Your task to perform on an android device: Go to internet settings Image 0: 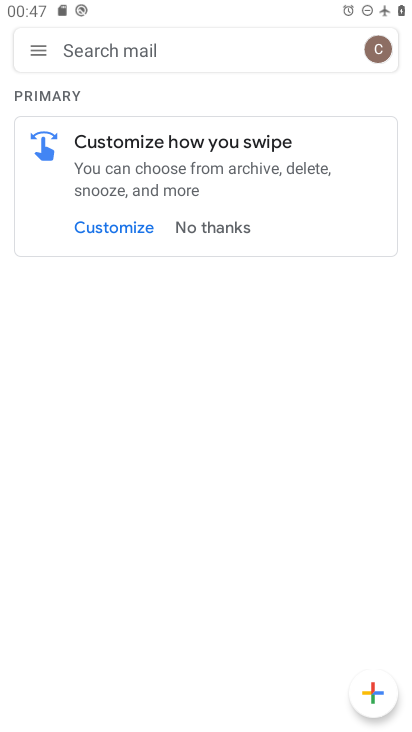
Step 0: press home button
Your task to perform on an android device: Go to internet settings Image 1: 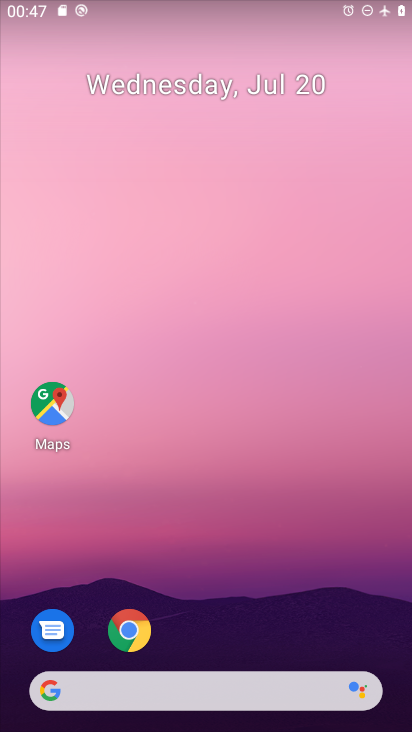
Step 1: drag from (194, 627) to (226, 227)
Your task to perform on an android device: Go to internet settings Image 2: 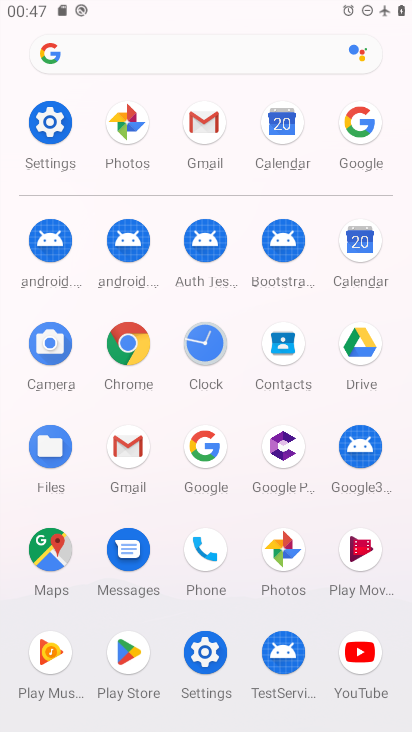
Step 2: click (54, 140)
Your task to perform on an android device: Go to internet settings Image 3: 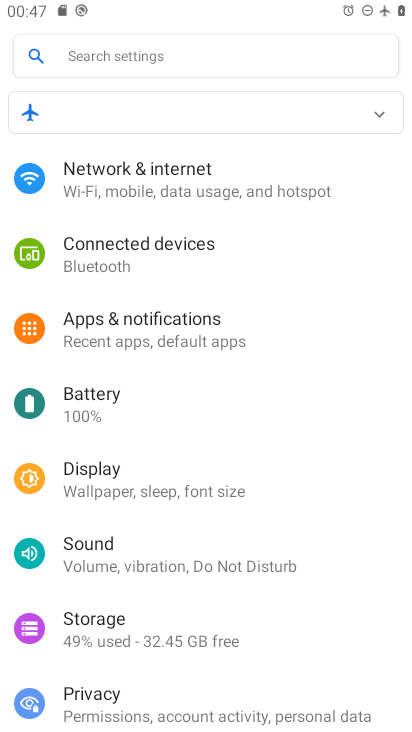
Step 3: click (117, 172)
Your task to perform on an android device: Go to internet settings Image 4: 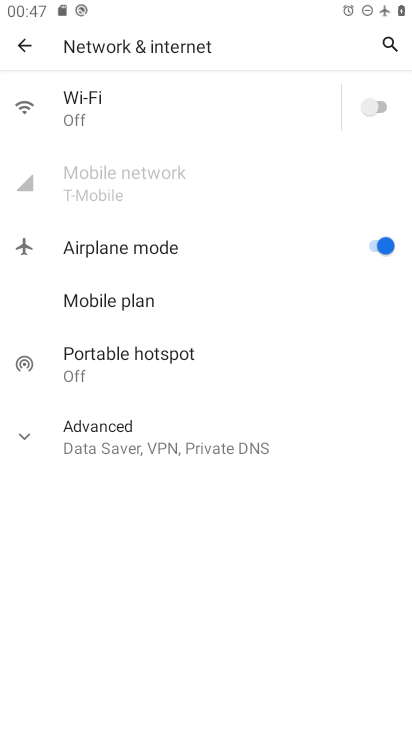
Step 4: task complete